Your task to perform on an android device: Is it going to rain today? Image 0: 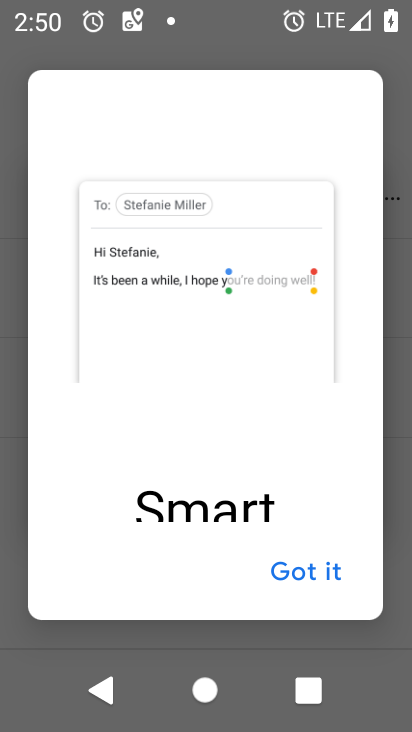
Step 0: press home button
Your task to perform on an android device: Is it going to rain today? Image 1: 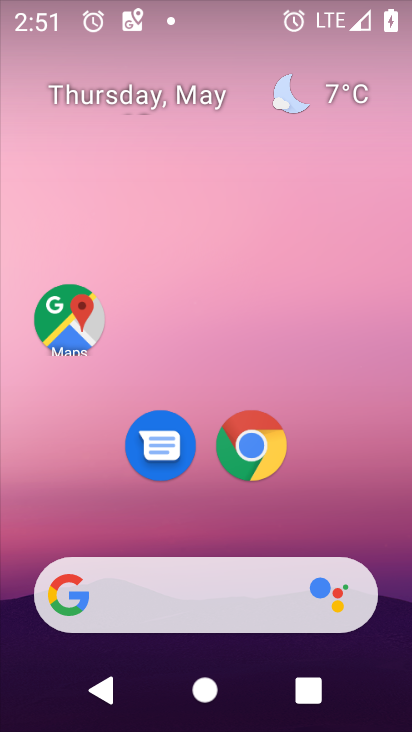
Step 1: click (353, 95)
Your task to perform on an android device: Is it going to rain today? Image 2: 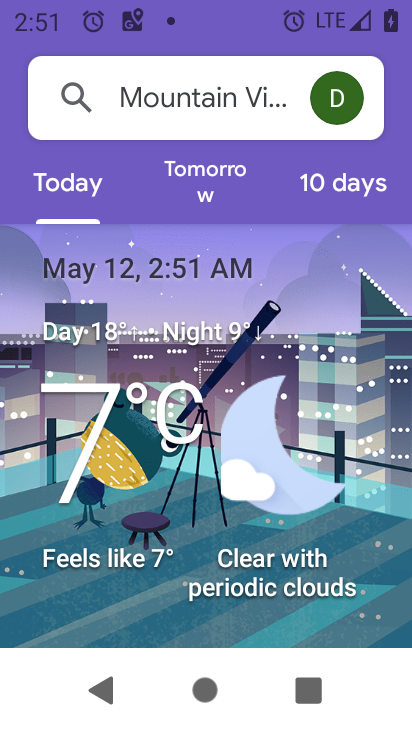
Step 2: task complete